Your task to perform on an android device: Open eBay Image 0: 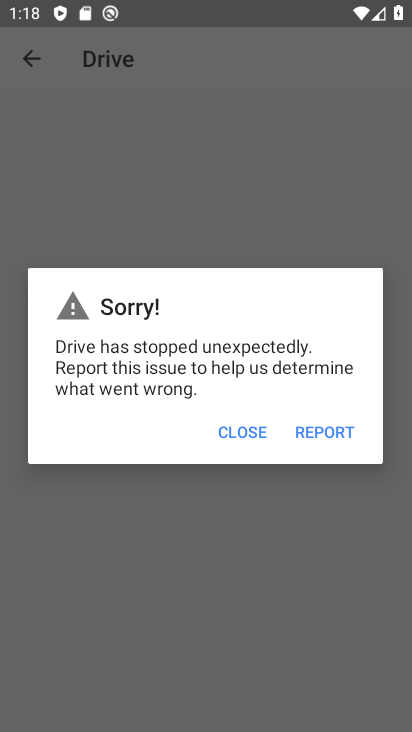
Step 0: press home button
Your task to perform on an android device: Open eBay Image 1: 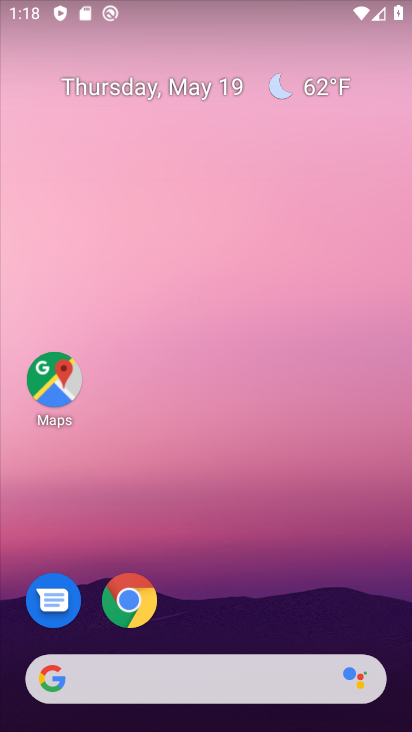
Step 1: click (146, 598)
Your task to perform on an android device: Open eBay Image 2: 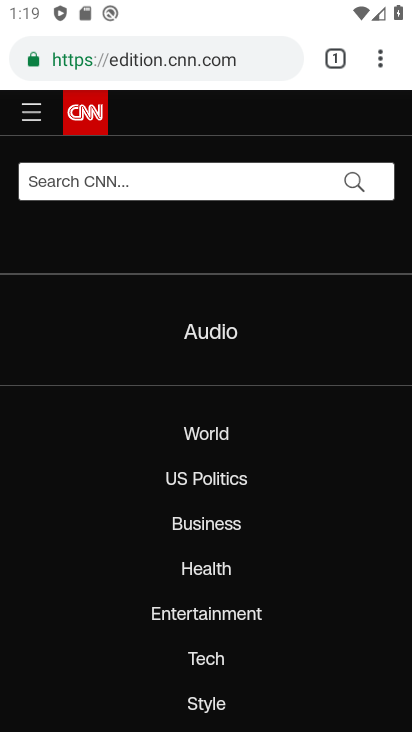
Step 2: click (330, 62)
Your task to perform on an android device: Open eBay Image 3: 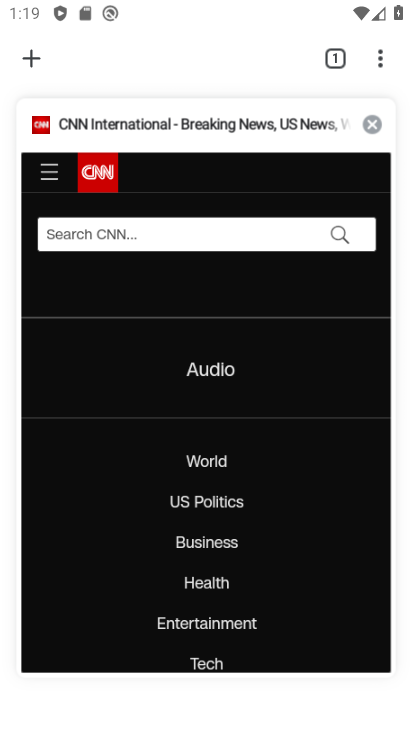
Step 3: click (376, 125)
Your task to perform on an android device: Open eBay Image 4: 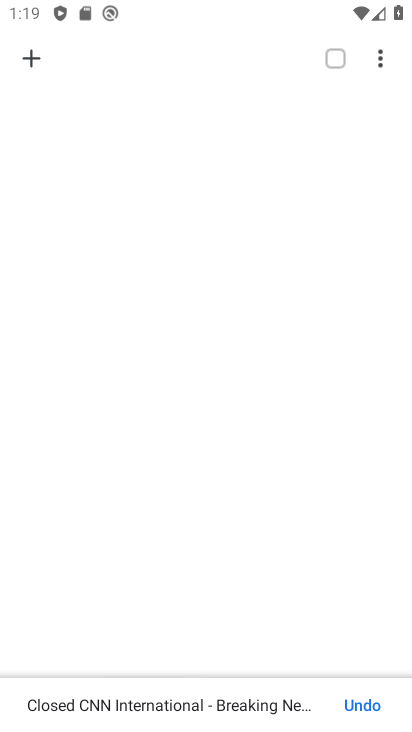
Step 4: click (36, 66)
Your task to perform on an android device: Open eBay Image 5: 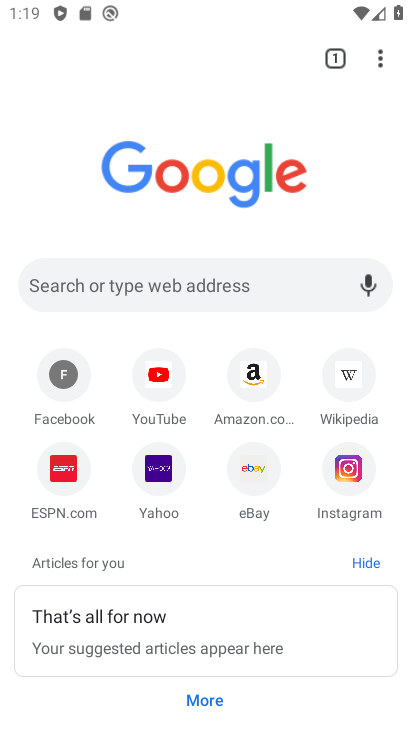
Step 5: click (257, 480)
Your task to perform on an android device: Open eBay Image 6: 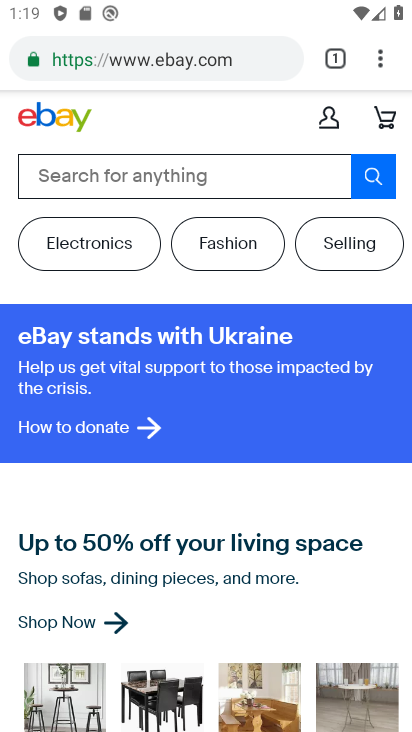
Step 6: task complete